Your task to perform on an android device: turn on bluetooth scan Image 0: 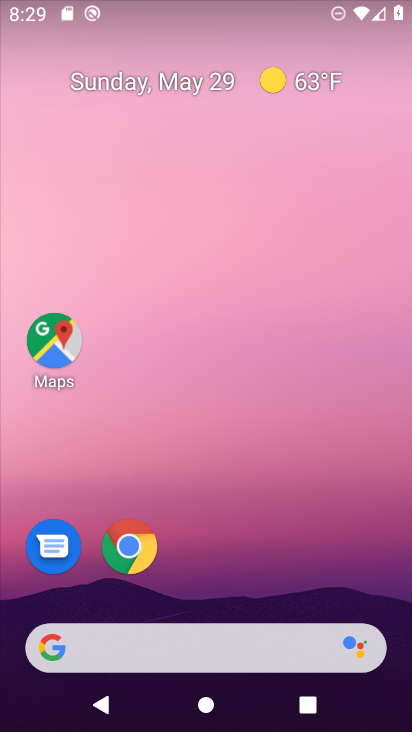
Step 0: press home button
Your task to perform on an android device: turn on bluetooth scan Image 1: 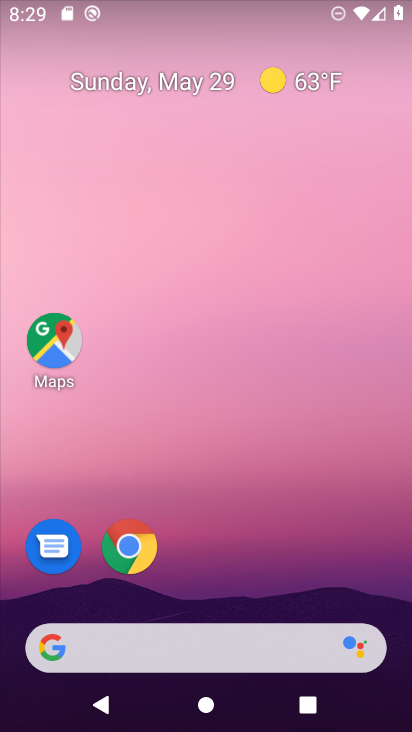
Step 1: drag from (200, 649) to (286, 81)
Your task to perform on an android device: turn on bluetooth scan Image 2: 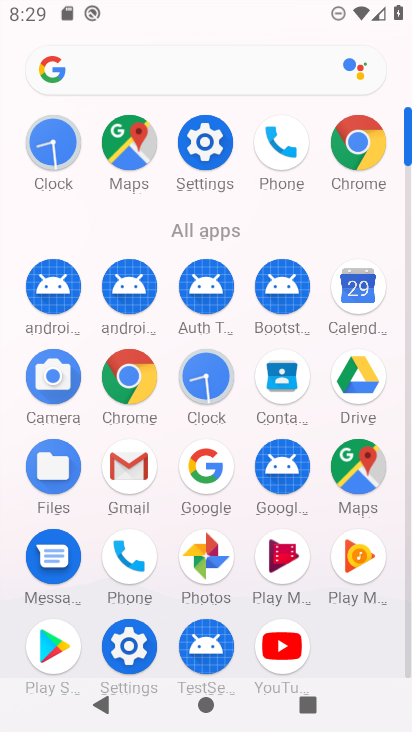
Step 2: click (201, 145)
Your task to perform on an android device: turn on bluetooth scan Image 3: 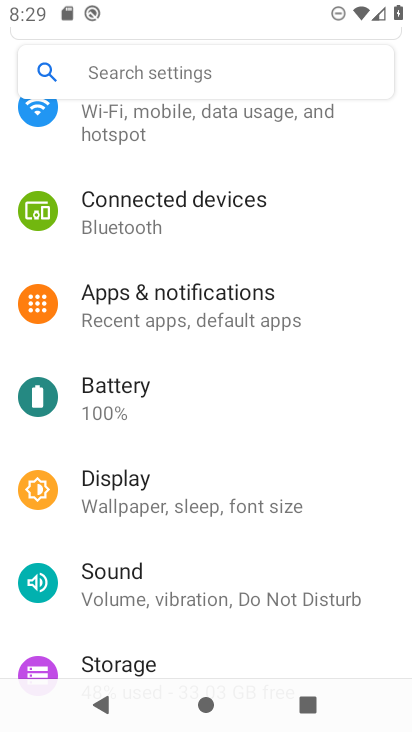
Step 3: drag from (204, 649) to (363, 85)
Your task to perform on an android device: turn on bluetooth scan Image 4: 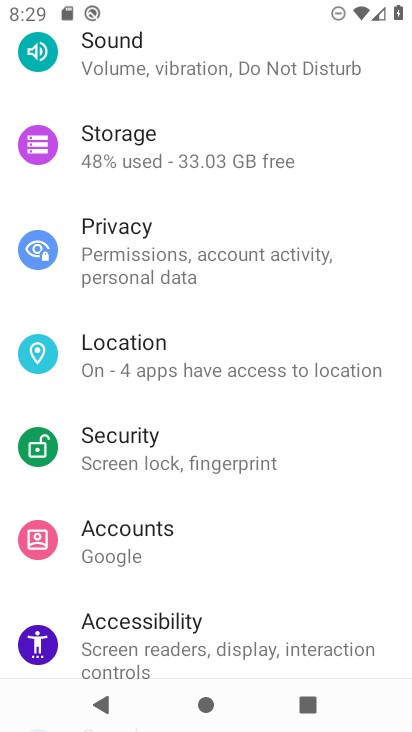
Step 4: click (170, 361)
Your task to perform on an android device: turn on bluetooth scan Image 5: 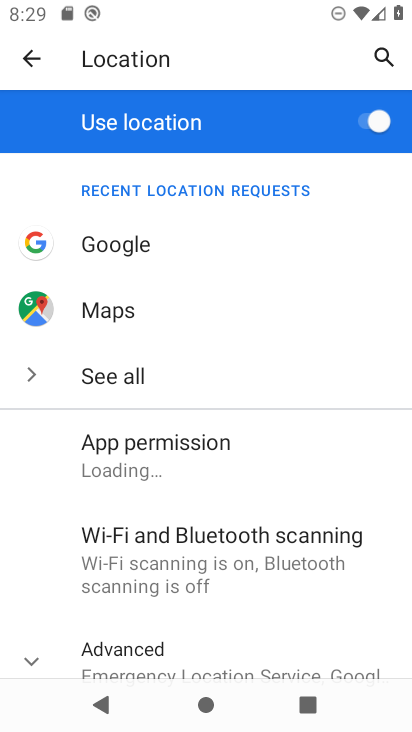
Step 5: click (235, 556)
Your task to perform on an android device: turn on bluetooth scan Image 6: 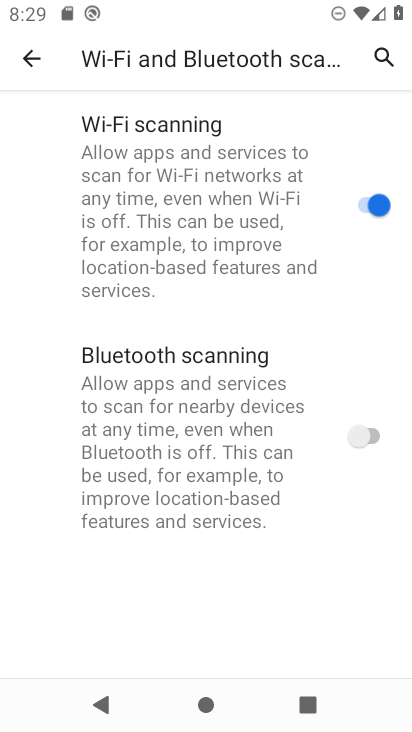
Step 6: click (373, 435)
Your task to perform on an android device: turn on bluetooth scan Image 7: 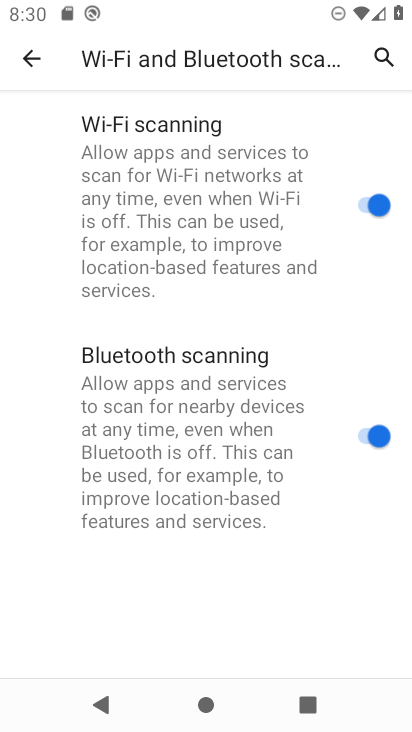
Step 7: task complete